Your task to perform on an android device: turn off picture-in-picture Image 0: 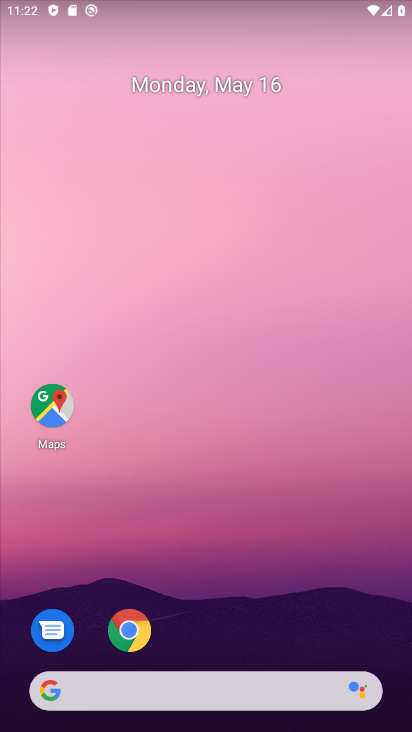
Step 0: drag from (246, 209) to (267, 97)
Your task to perform on an android device: turn off picture-in-picture Image 1: 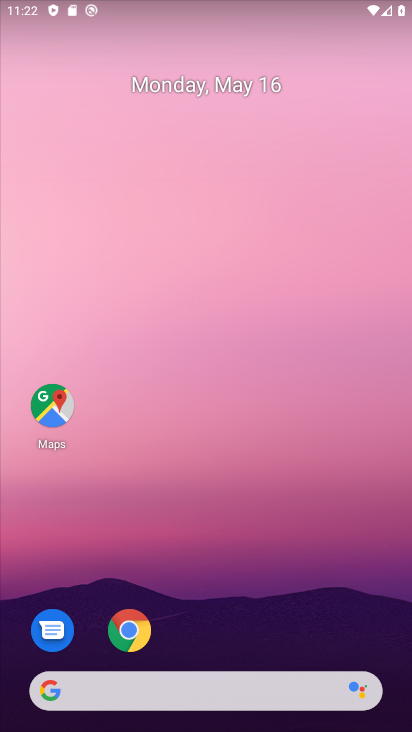
Step 1: drag from (189, 604) to (293, 59)
Your task to perform on an android device: turn off picture-in-picture Image 2: 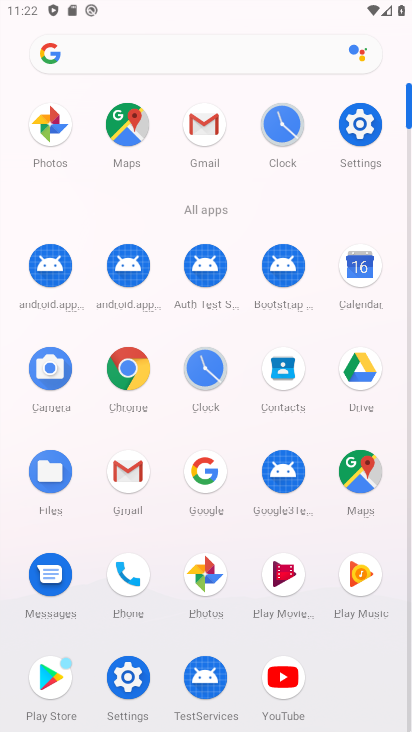
Step 2: click (363, 120)
Your task to perform on an android device: turn off picture-in-picture Image 3: 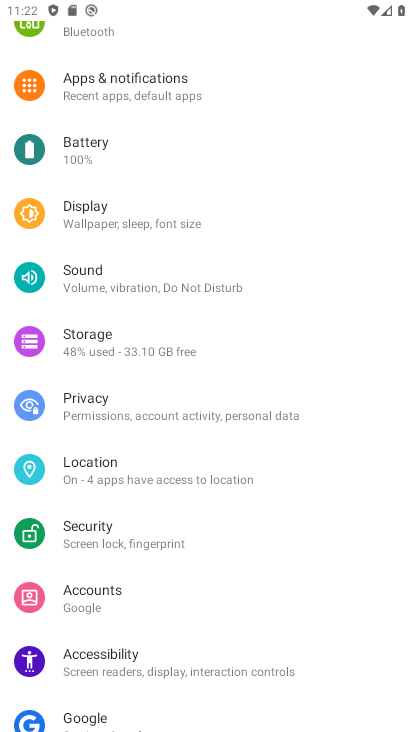
Step 3: click (142, 90)
Your task to perform on an android device: turn off picture-in-picture Image 4: 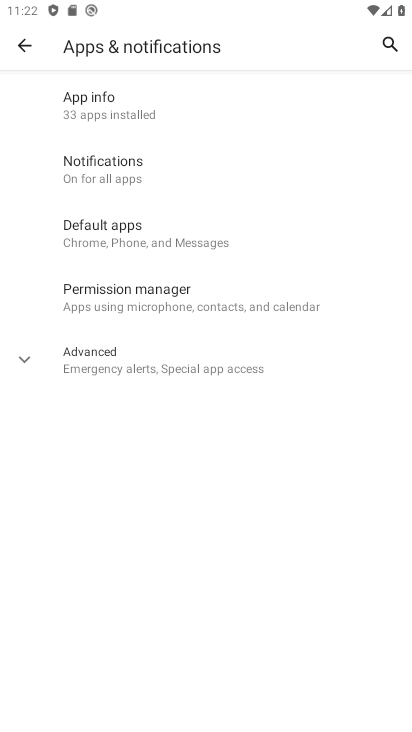
Step 4: click (183, 372)
Your task to perform on an android device: turn off picture-in-picture Image 5: 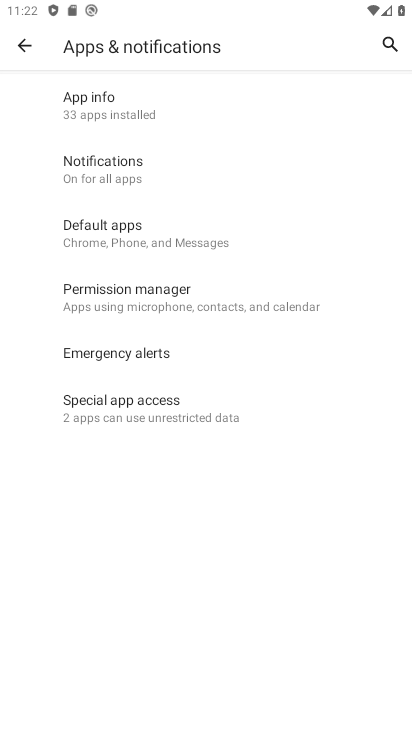
Step 5: click (233, 418)
Your task to perform on an android device: turn off picture-in-picture Image 6: 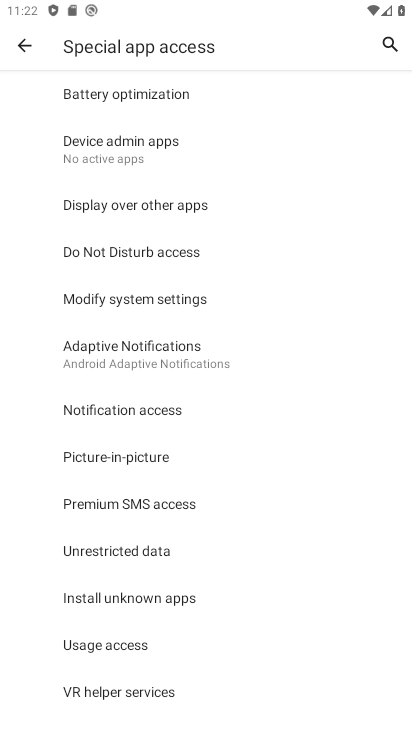
Step 6: click (165, 460)
Your task to perform on an android device: turn off picture-in-picture Image 7: 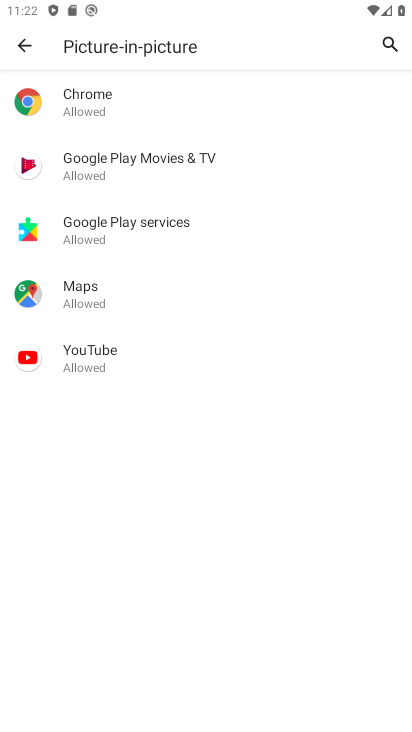
Step 7: click (336, 84)
Your task to perform on an android device: turn off picture-in-picture Image 8: 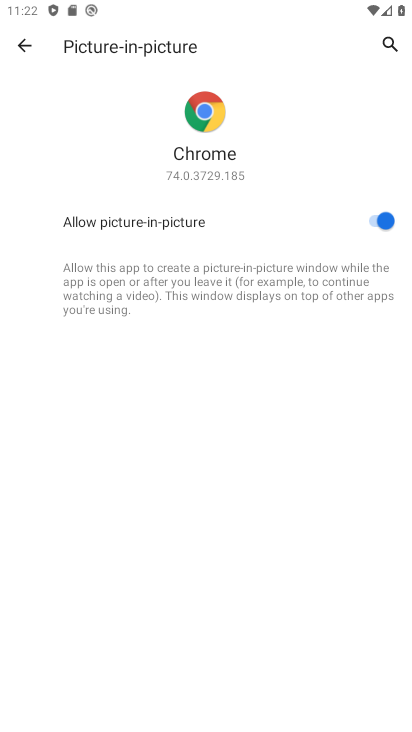
Step 8: click (366, 219)
Your task to perform on an android device: turn off picture-in-picture Image 9: 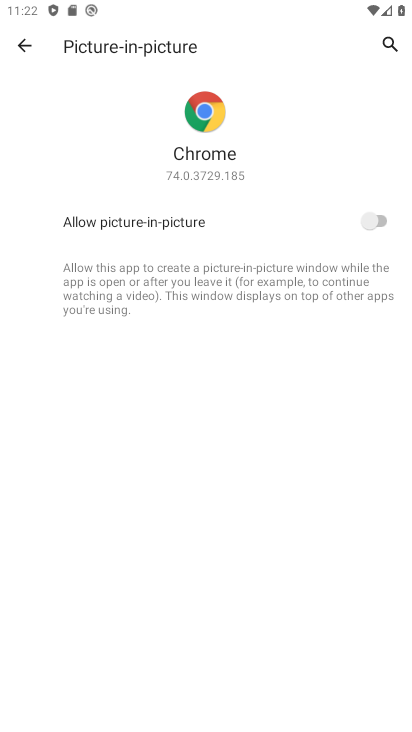
Step 9: press back button
Your task to perform on an android device: turn off picture-in-picture Image 10: 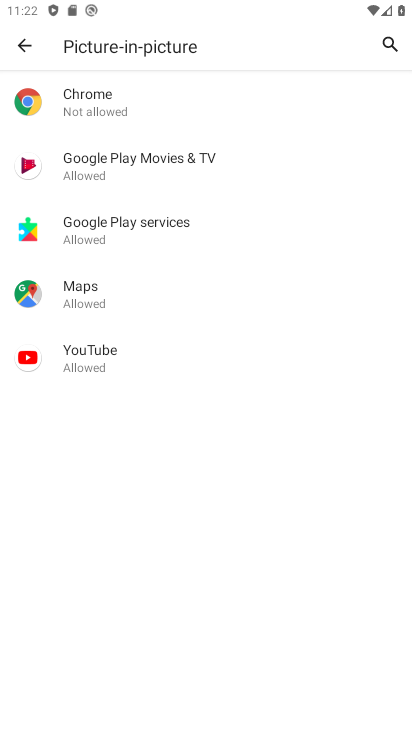
Step 10: click (316, 183)
Your task to perform on an android device: turn off picture-in-picture Image 11: 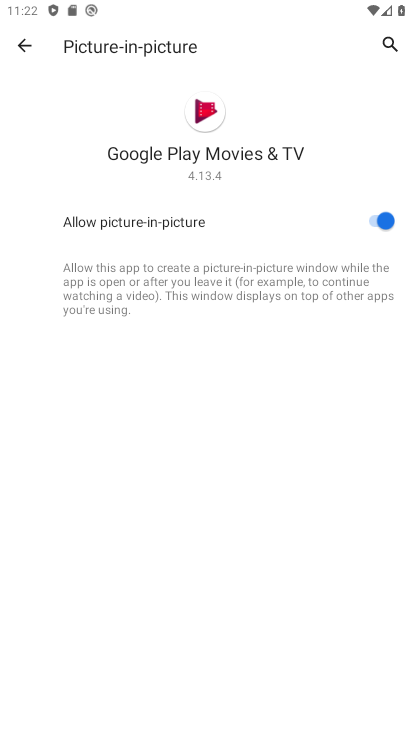
Step 11: click (370, 222)
Your task to perform on an android device: turn off picture-in-picture Image 12: 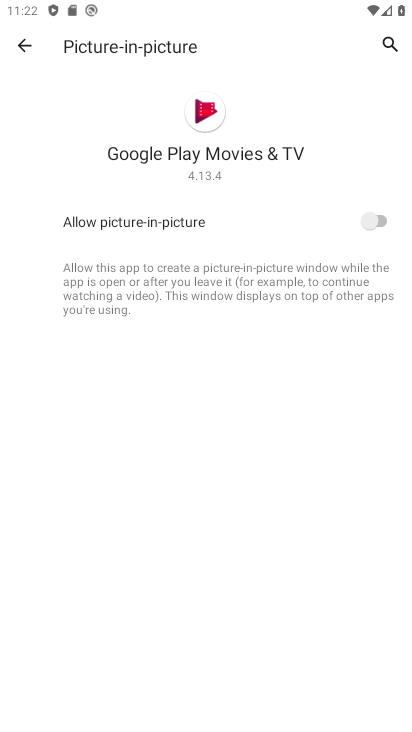
Step 12: press back button
Your task to perform on an android device: turn off picture-in-picture Image 13: 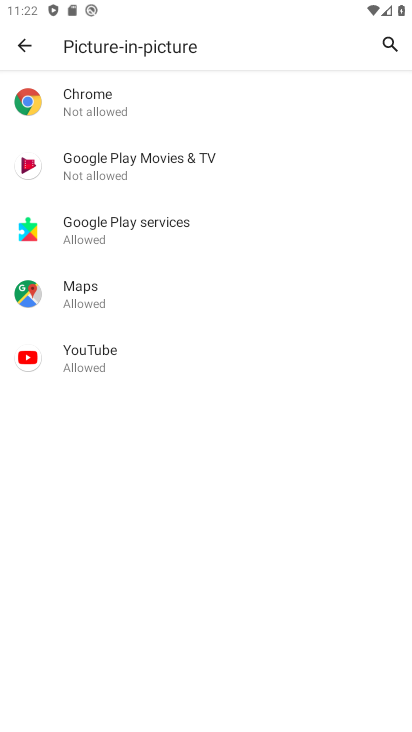
Step 13: click (206, 298)
Your task to perform on an android device: turn off picture-in-picture Image 14: 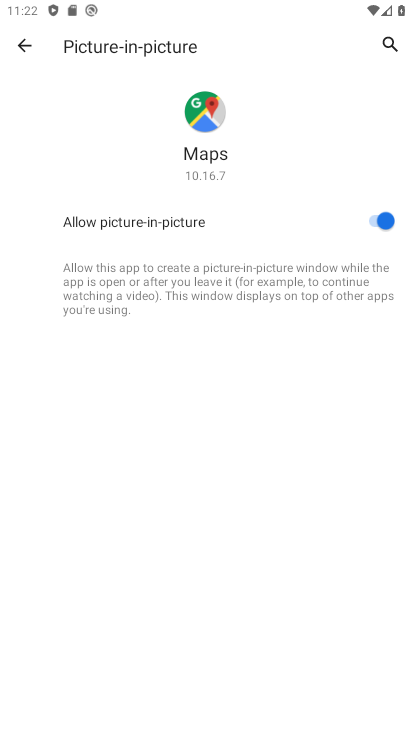
Step 14: click (380, 221)
Your task to perform on an android device: turn off picture-in-picture Image 15: 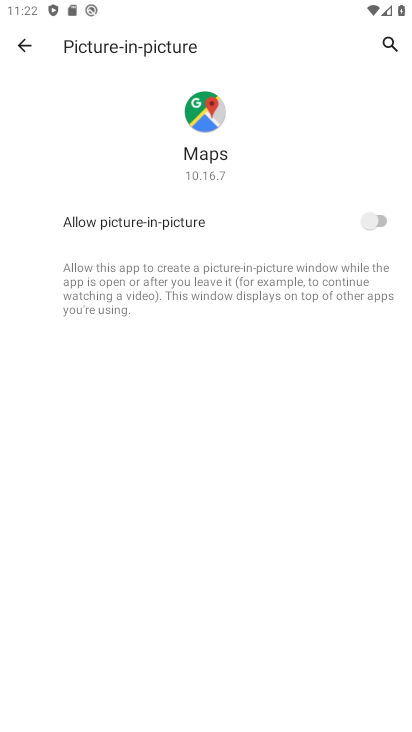
Step 15: press back button
Your task to perform on an android device: turn off picture-in-picture Image 16: 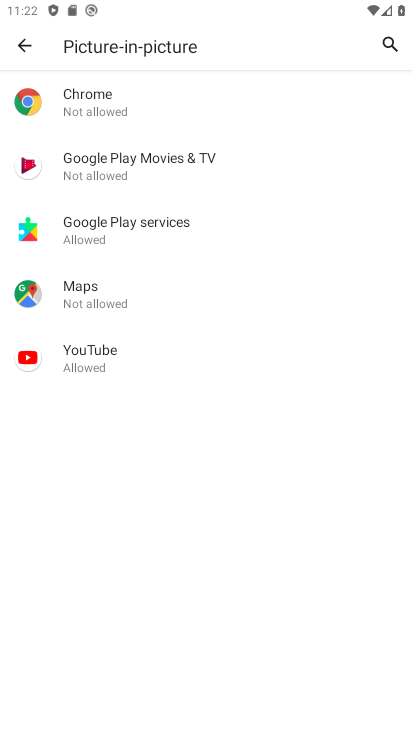
Step 16: click (298, 368)
Your task to perform on an android device: turn off picture-in-picture Image 17: 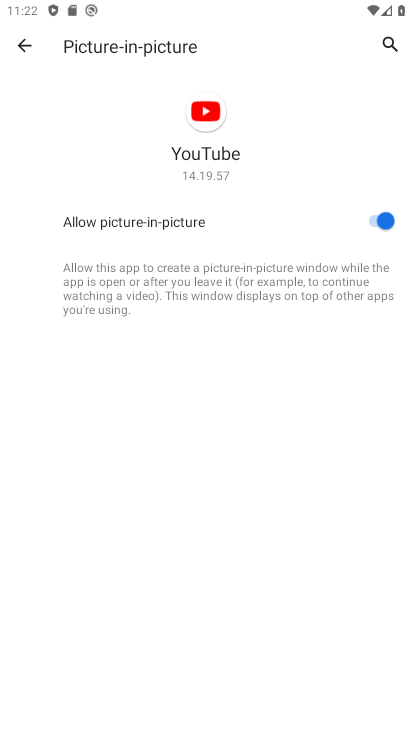
Step 17: click (380, 224)
Your task to perform on an android device: turn off picture-in-picture Image 18: 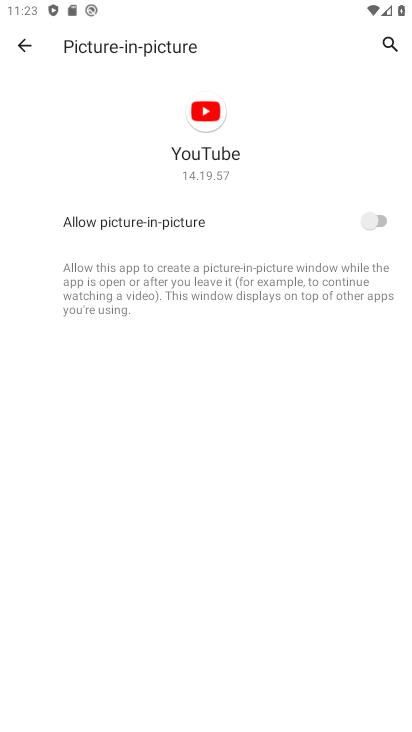
Step 18: task complete